Your task to perform on an android device: Open Amazon Image 0: 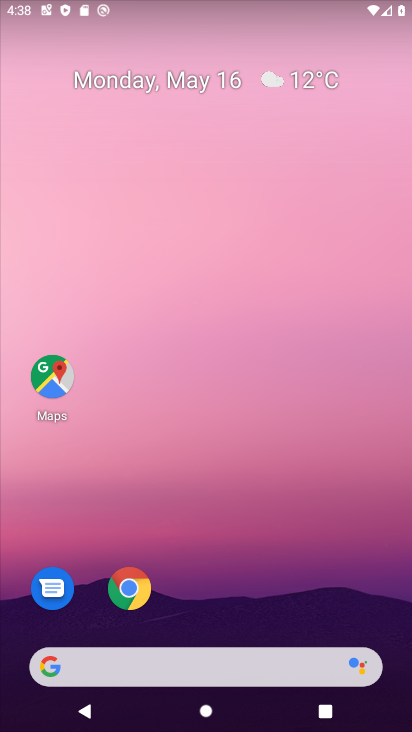
Step 0: click (133, 592)
Your task to perform on an android device: Open Amazon Image 1: 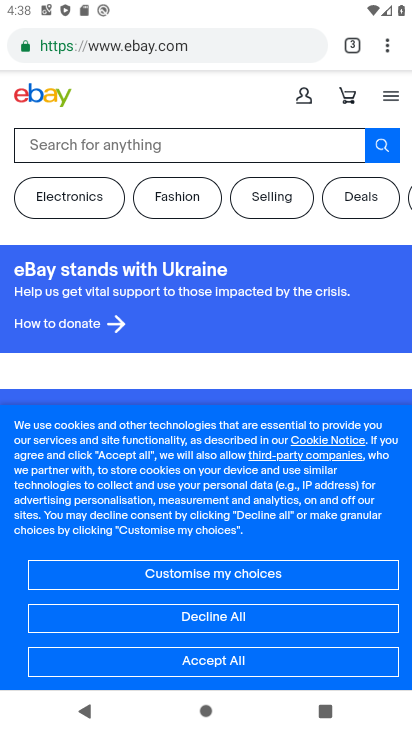
Step 1: click (355, 39)
Your task to perform on an android device: Open Amazon Image 2: 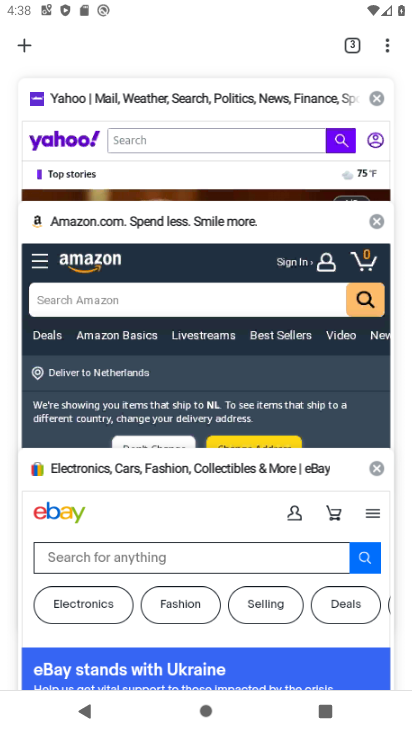
Step 2: click (86, 294)
Your task to perform on an android device: Open Amazon Image 3: 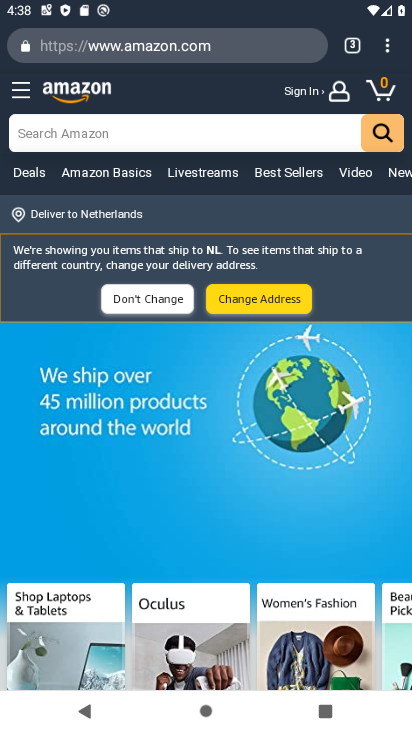
Step 3: task complete